Your task to perform on an android device: Open wifi settings Image 0: 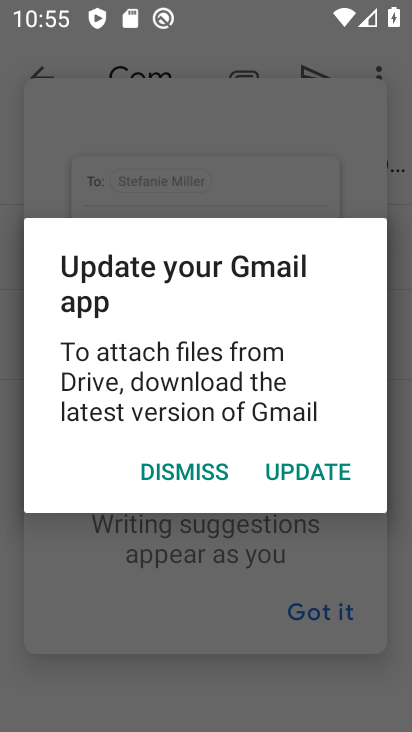
Step 0: press home button
Your task to perform on an android device: Open wifi settings Image 1: 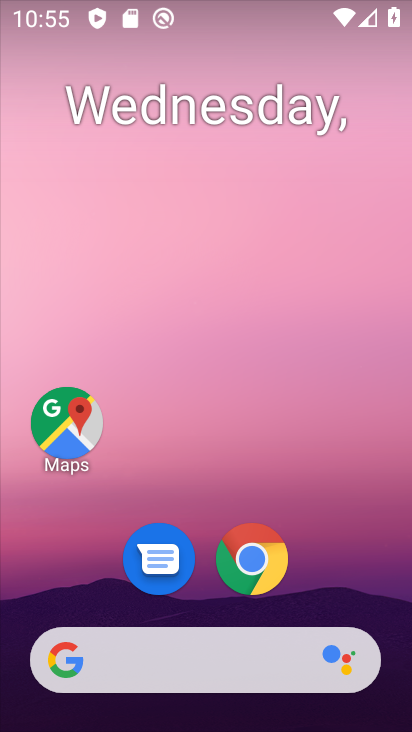
Step 1: drag from (337, 568) to (260, 158)
Your task to perform on an android device: Open wifi settings Image 2: 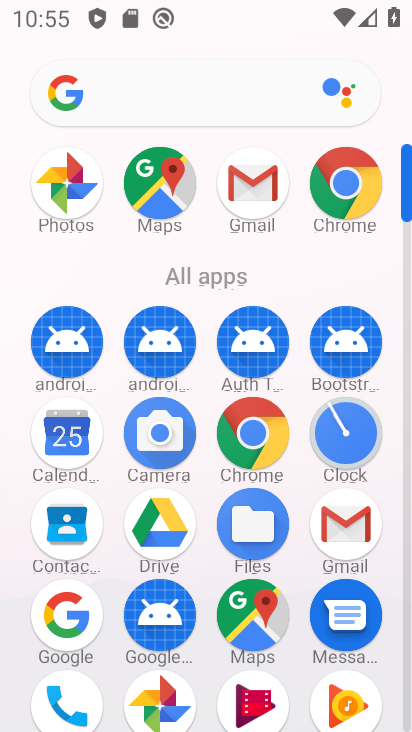
Step 2: click (406, 669)
Your task to perform on an android device: Open wifi settings Image 3: 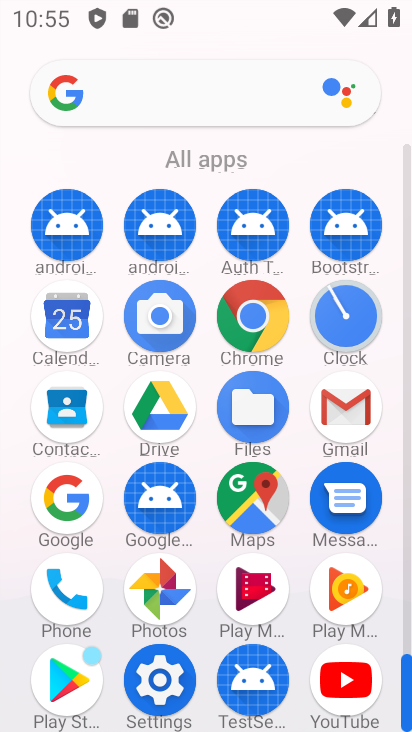
Step 3: click (146, 679)
Your task to perform on an android device: Open wifi settings Image 4: 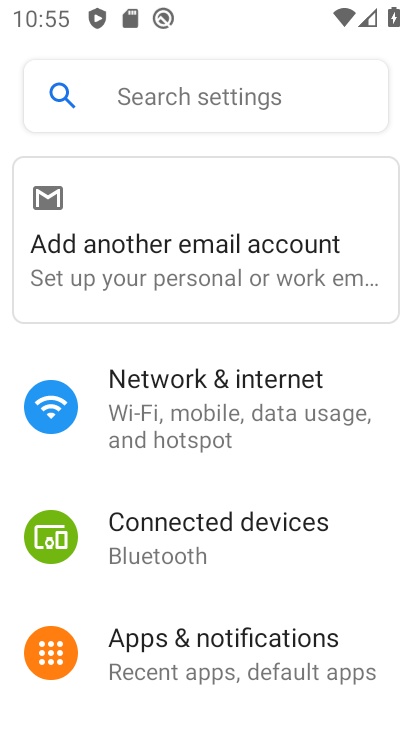
Step 4: click (250, 388)
Your task to perform on an android device: Open wifi settings Image 5: 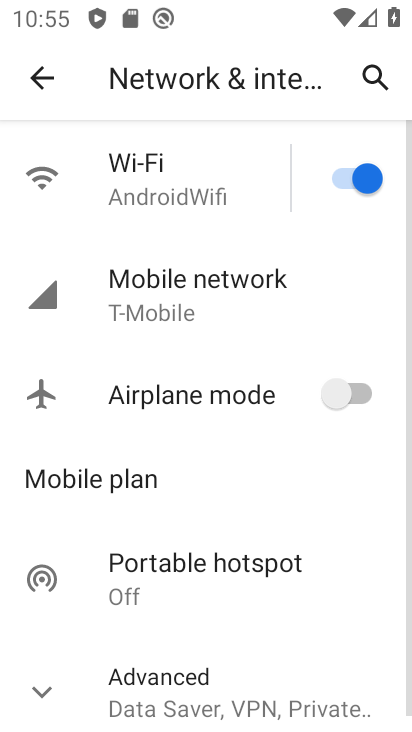
Step 5: click (175, 177)
Your task to perform on an android device: Open wifi settings Image 6: 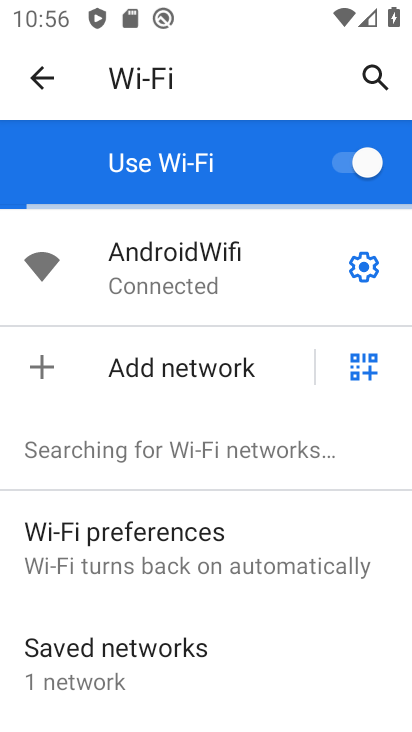
Step 6: task complete